Your task to perform on an android device: change timer sound Image 0: 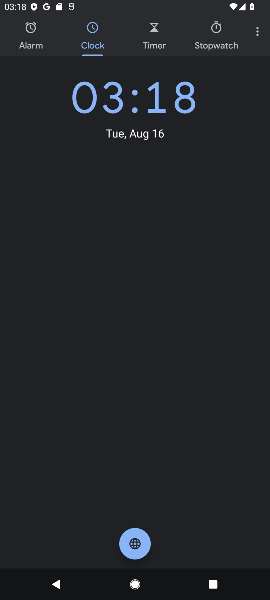
Step 0: press home button
Your task to perform on an android device: change timer sound Image 1: 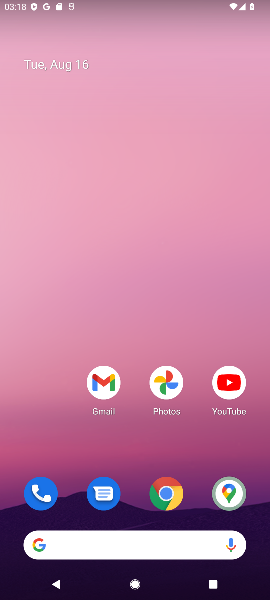
Step 1: drag from (67, 463) to (94, 52)
Your task to perform on an android device: change timer sound Image 2: 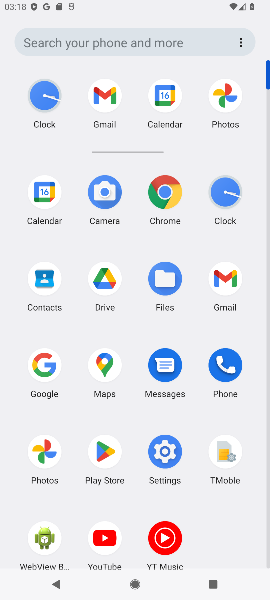
Step 2: click (228, 193)
Your task to perform on an android device: change timer sound Image 3: 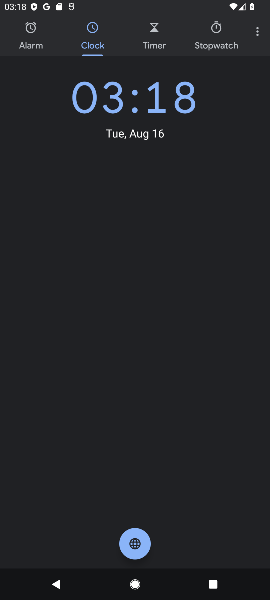
Step 3: click (255, 33)
Your task to perform on an android device: change timer sound Image 4: 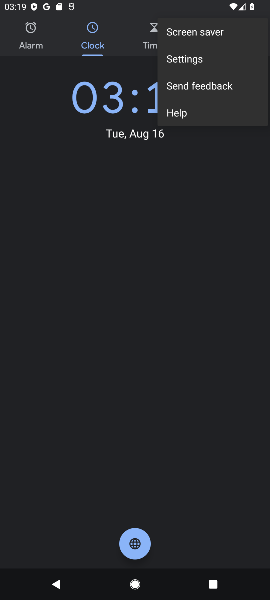
Step 4: click (196, 64)
Your task to perform on an android device: change timer sound Image 5: 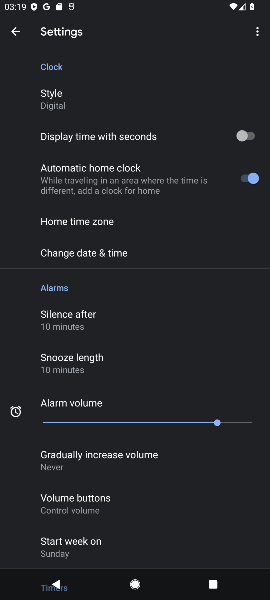
Step 5: drag from (191, 359) to (220, 200)
Your task to perform on an android device: change timer sound Image 6: 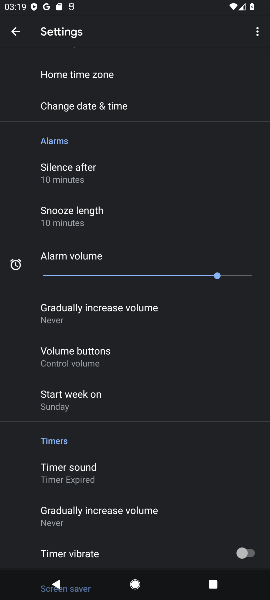
Step 6: drag from (179, 365) to (221, 210)
Your task to perform on an android device: change timer sound Image 7: 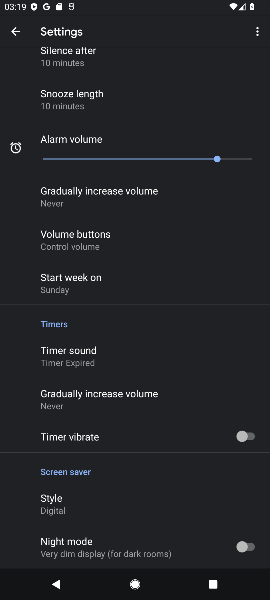
Step 7: drag from (191, 387) to (201, 229)
Your task to perform on an android device: change timer sound Image 8: 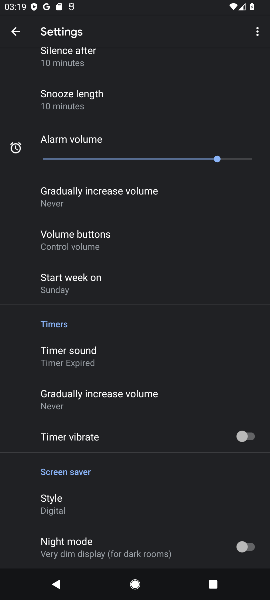
Step 8: drag from (193, 218) to (198, 316)
Your task to perform on an android device: change timer sound Image 9: 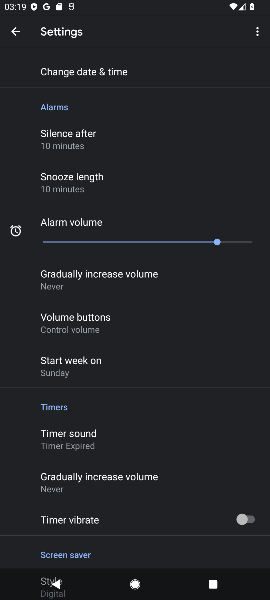
Step 9: drag from (196, 142) to (200, 282)
Your task to perform on an android device: change timer sound Image 10: 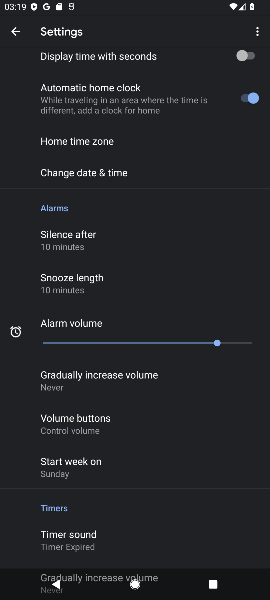
Step 10: drag from (213, 60) to (206, 282)
Your task to perform on an android device: change timer sound Image 11: 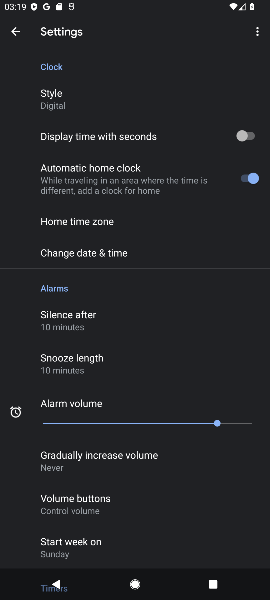
Step 11: drag from (182, 73) to (188, 238)
Your task to perform on an android device: change timer sound Image 12: 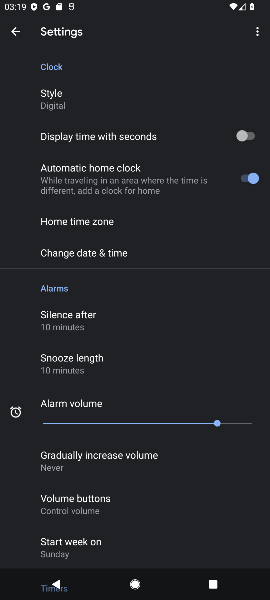
Step 12: drag from (181, 319) to (196, 226)
Your task to perform on an android device: change timer sound Image 13: 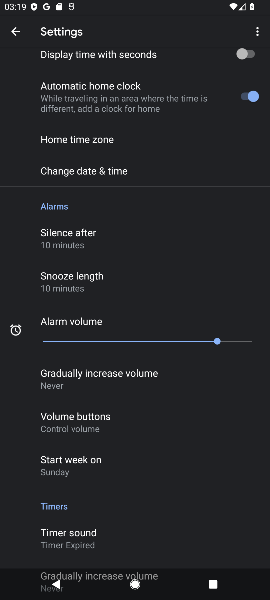
Step 13: drag from (174, 381) to (192, 244)
Your task to perform on an android device: change timer sound Image 14: 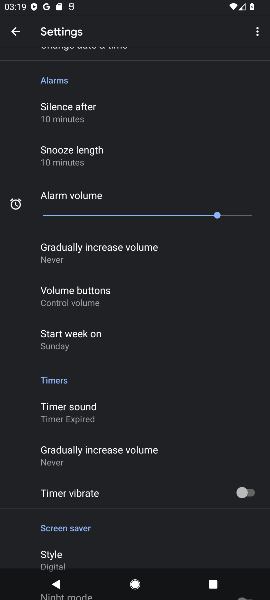
Step 14: drag from (168, 411) to (179, 266)
Your task to perform on an android device: change timer sound Image 15: 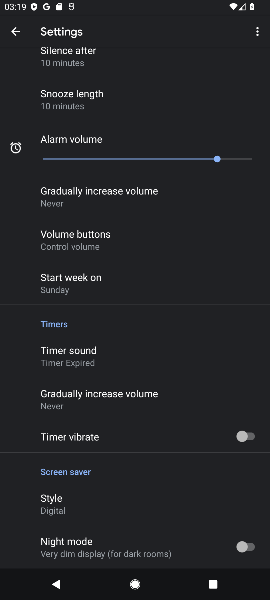
Step 15: click (122, 357)
Your task to perform on an android device: change timer sound Image 16: 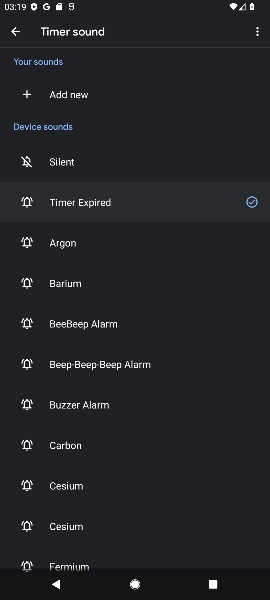
Step 16: drag from (160, 476) to (177, 329)
Your task to perform on an android device: change timer sound Image 17: 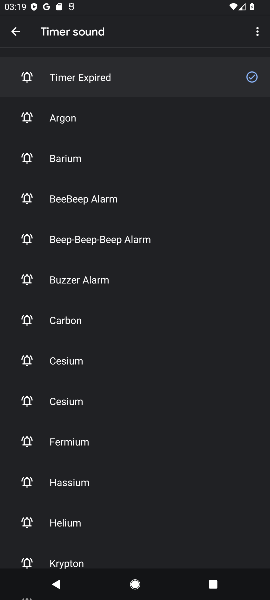
Step 17: click (122, 440)
Your task to perform on an android device: change timer sound Image 18: 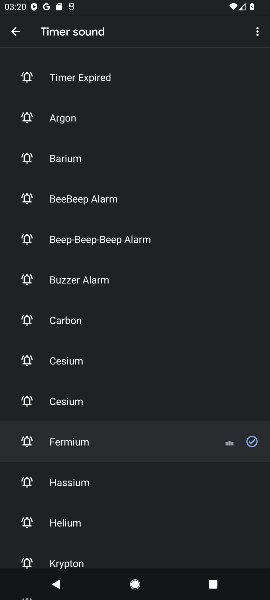
Step 18: task complete